Your task to perform on an android device: Open location settings Image 0: 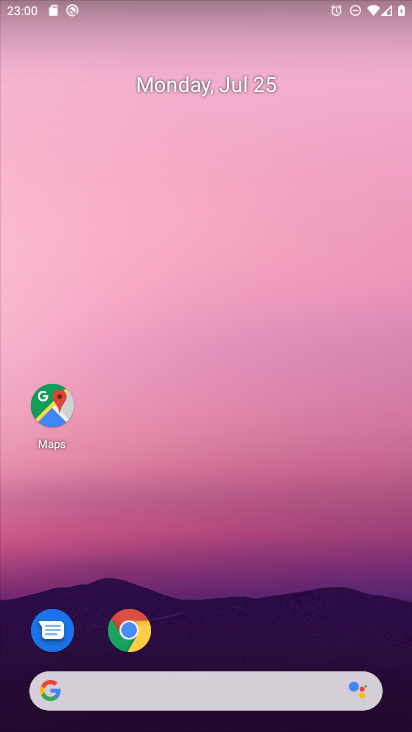
Step 0: drag from (305, 606) to (179, 30)
Your task to perform on an android device: Open location settings Image 1: 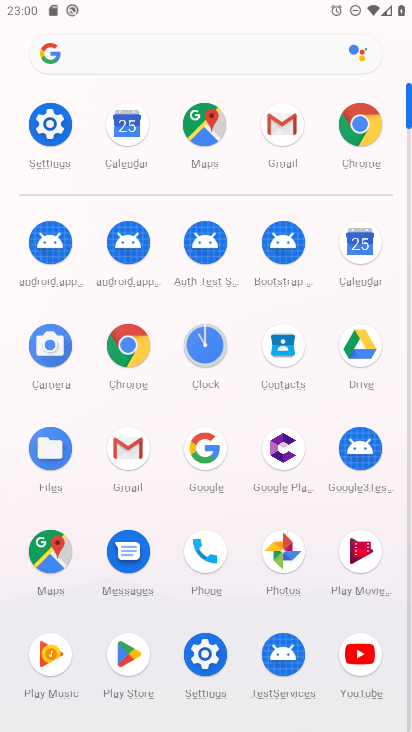
Step 1: click (53, 123)
Your task to perform on an android device: Open location settings Image 2: 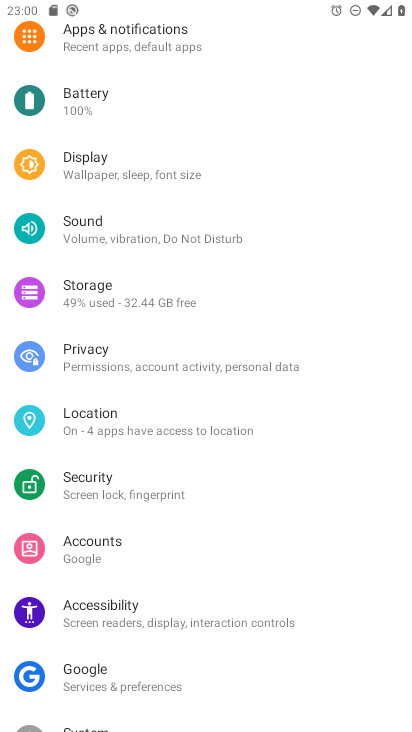
Step 2: click (118, 424)
Your task to perform on an android device: Open location settings Image 3: 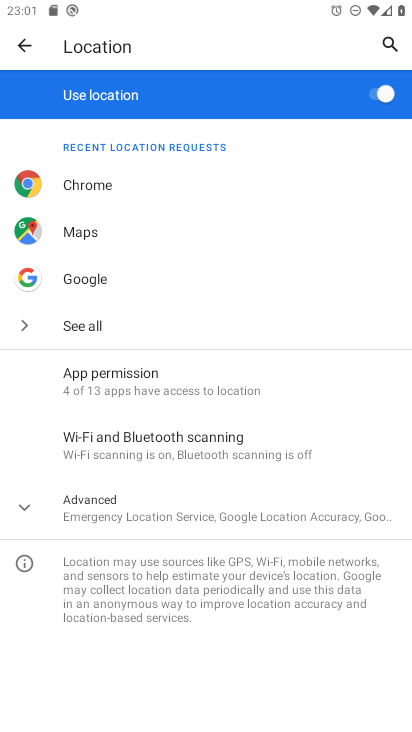
Step 3: task complete